Your task to perform on an android device: show emergency info Image 0: 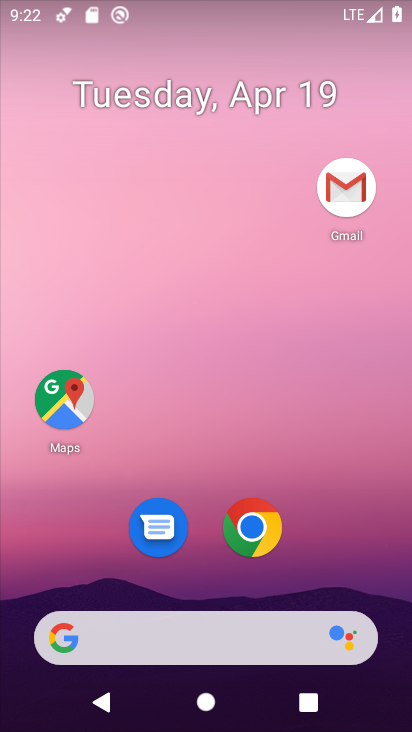
Step 0: drag from (360, 564) to (393, 129)
Your task to perform on an android device: show emergency info Image 1: 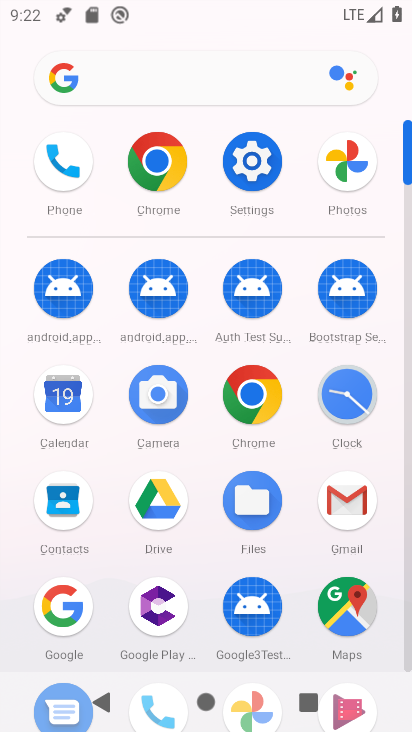
Step 1: click (226, 172)
Your task to perform on an android device: show emergency info Image 2: 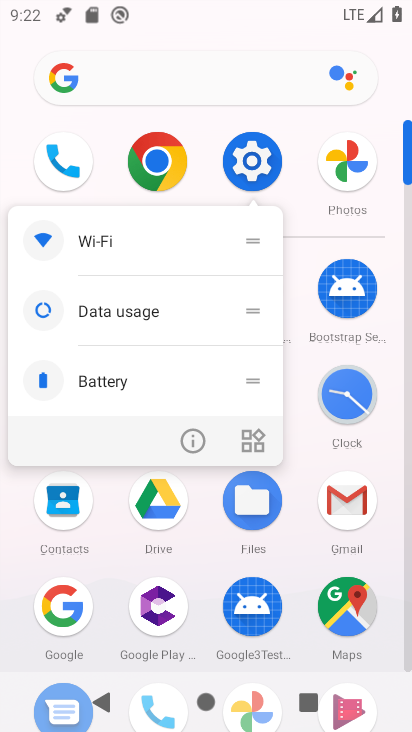
Step 2: click (226, 170)
Your task to perform on an android device: show emergency info Image 3: 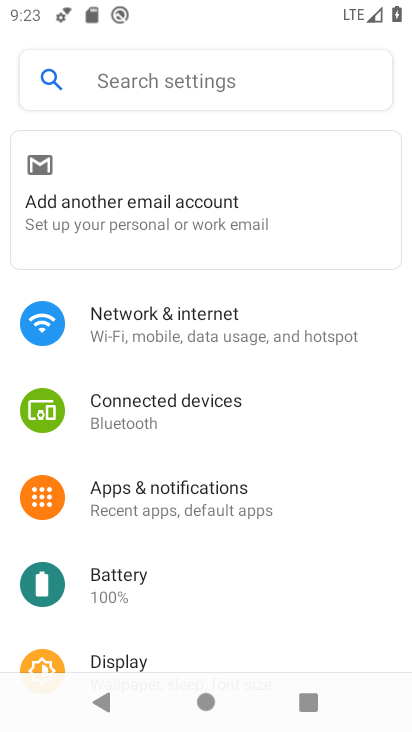
Step 3: drag from (272, 520) to (304, 179)
Your task to perform on an android device: show emergency info Image 4: 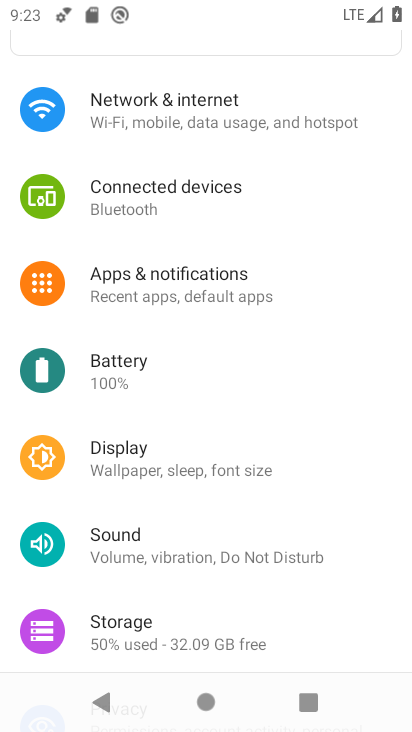
Step 4: drag from (319, 594) to (320, 181)
Your task to perform on an android device: show emergency info Image 5: 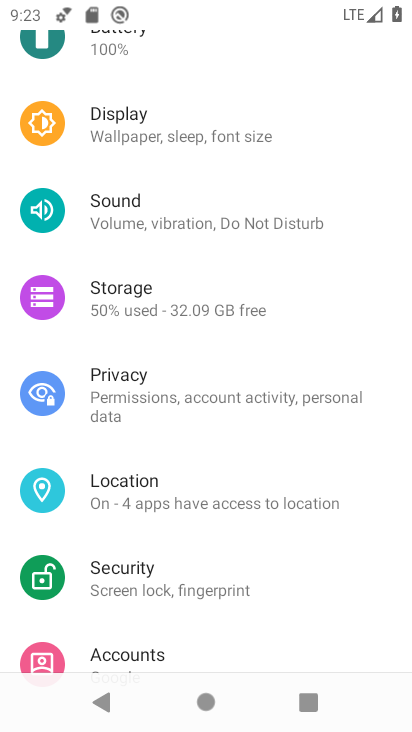
Step 5: drag from (348, 589) to (373, 167)
Your task to perform on an android device: show emergency info Image 6: 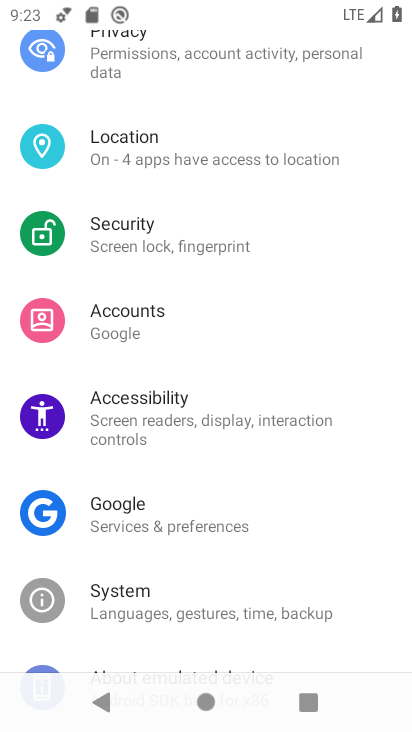
Step 6: drag from (364, 622) to (357, 161)
Your task to perform on an android device: show emergency info Image 7: 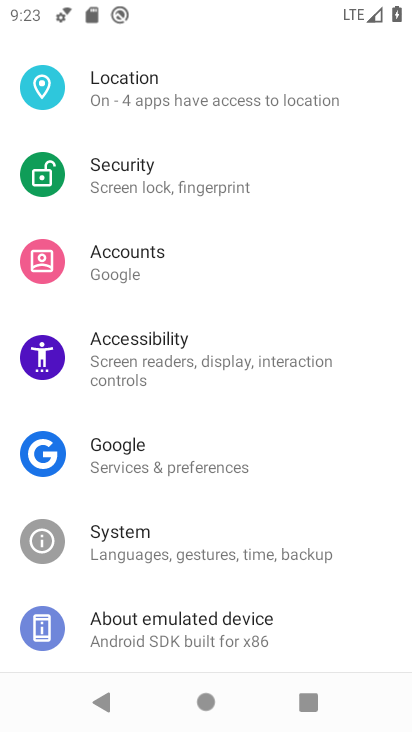
Step 7: click (211, 630)
Your task to perform on an android device: show emergency info Image 8: 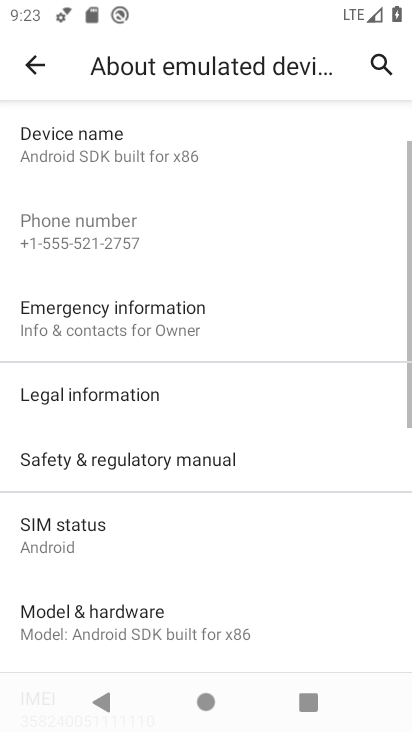
Step 8: click (153, 319)
Your task to perform on an android device: show emergency info Image 9: 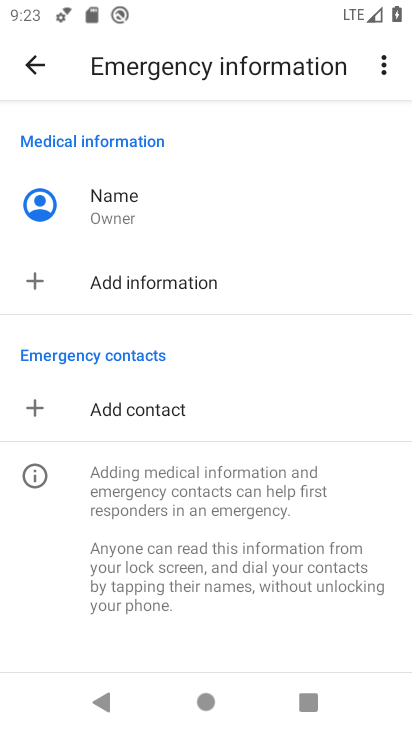
Step 9: task complete